Your task to perform on an android device: open app "Pluto TV - Live TV and Movies" (install if not already installed) and go to login screen Image 0: 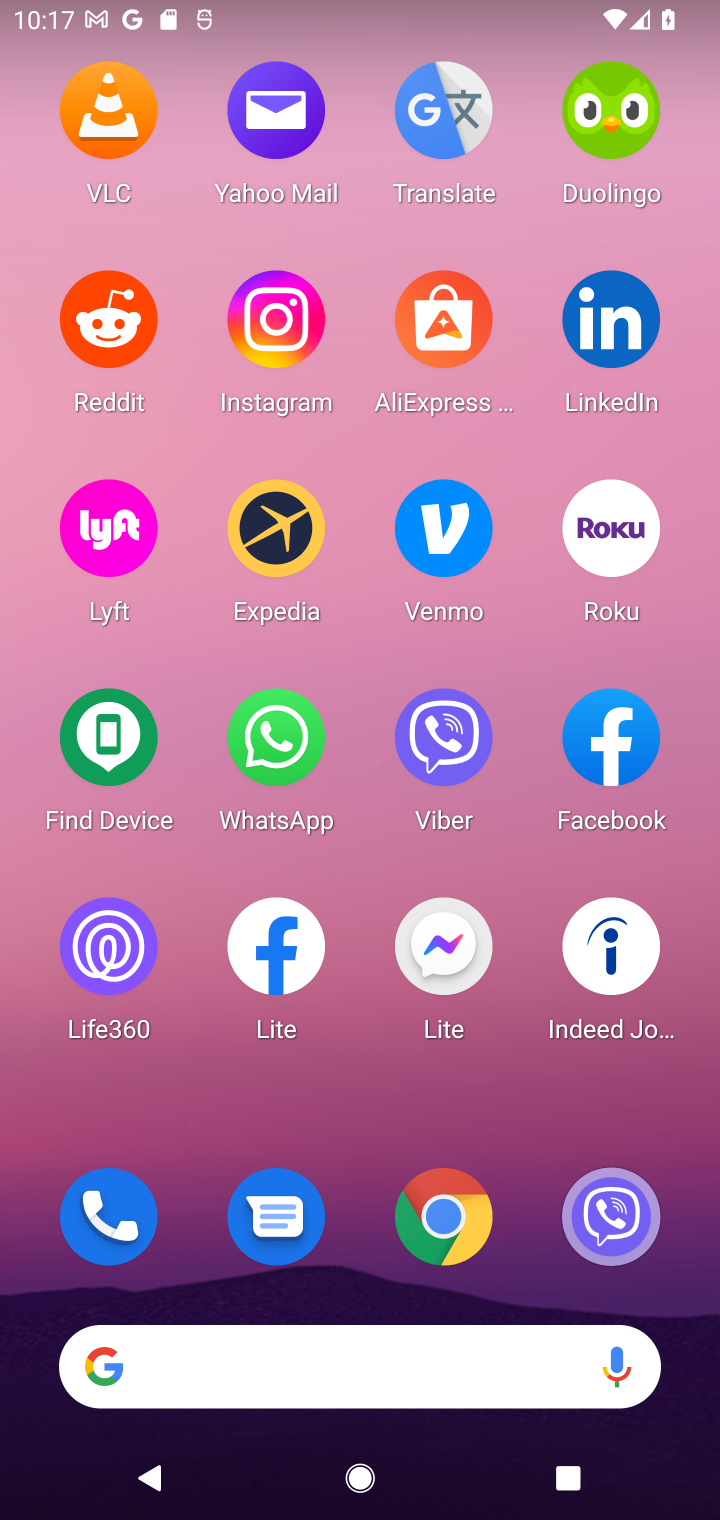
Step 0: press home button
Your task to perform on an android device: open app "Pluto TV - Live TV and Movies" (install if not already installed) and go to login screen Image 1: 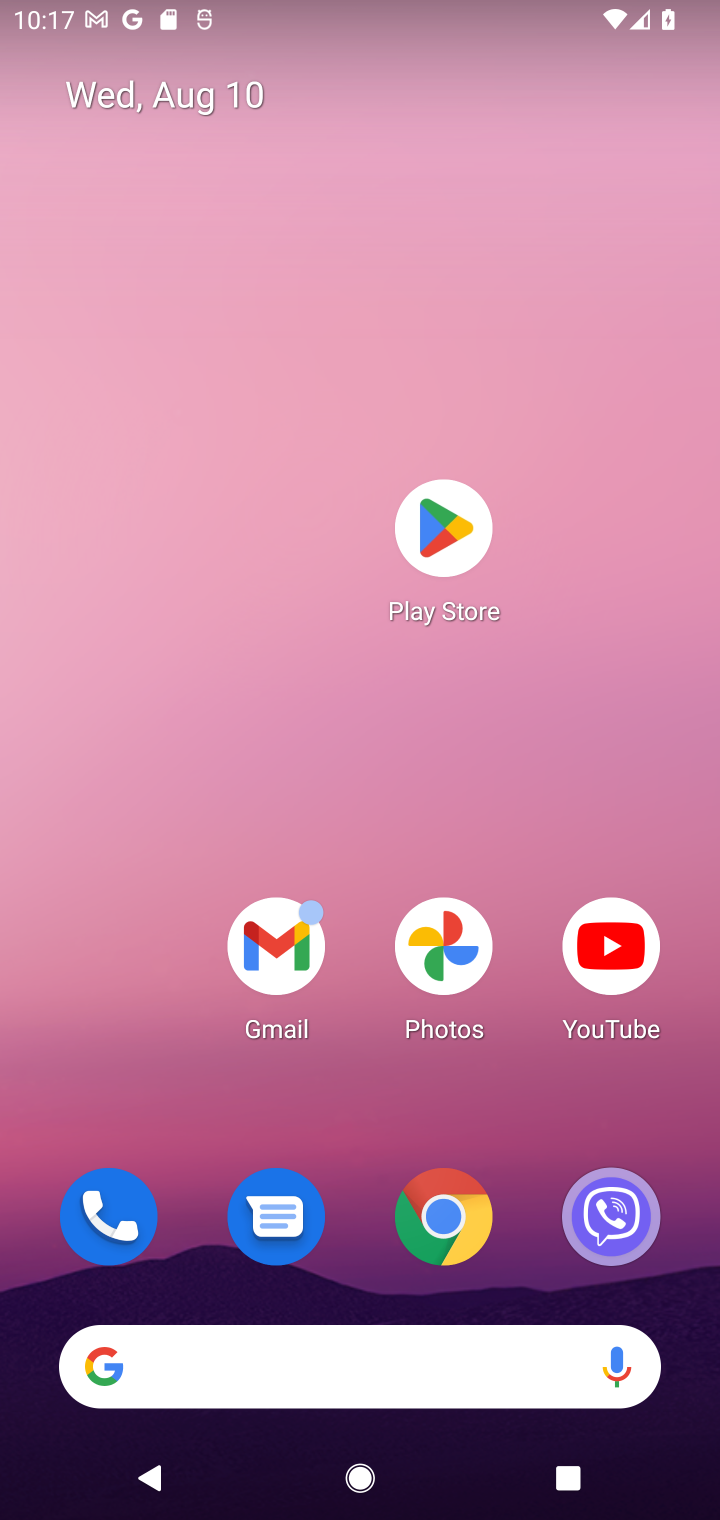
Step 1: click (446, 524)
Your task to perform on an android device: open app "Pluto TV - Live TV and Movies" (install if not already installed) and go to login screen Image 2: 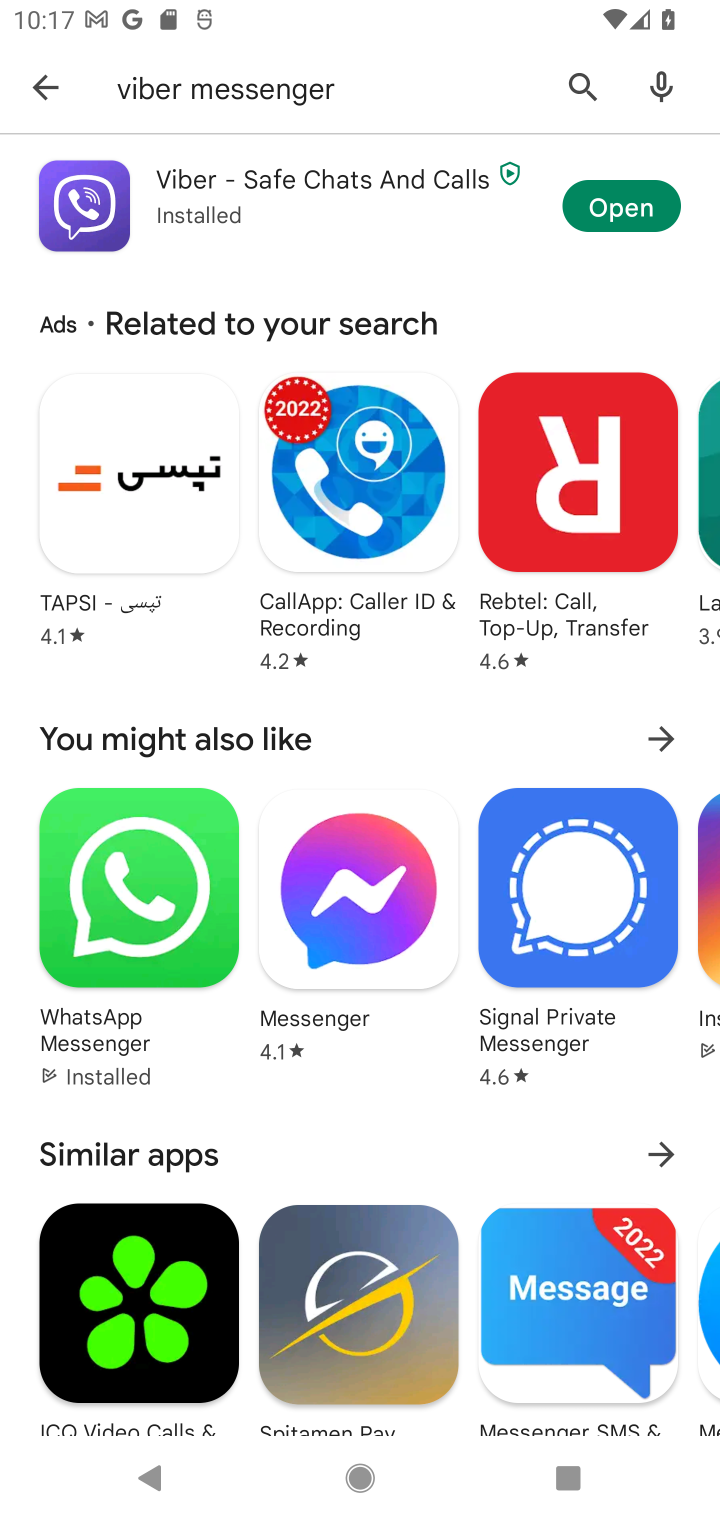
Step 2: click (565, 77)
Your task to perform on an android device: open app "Pluto TV - Live TV and Movies" (install if not already installed) and go to login screen Image 3: 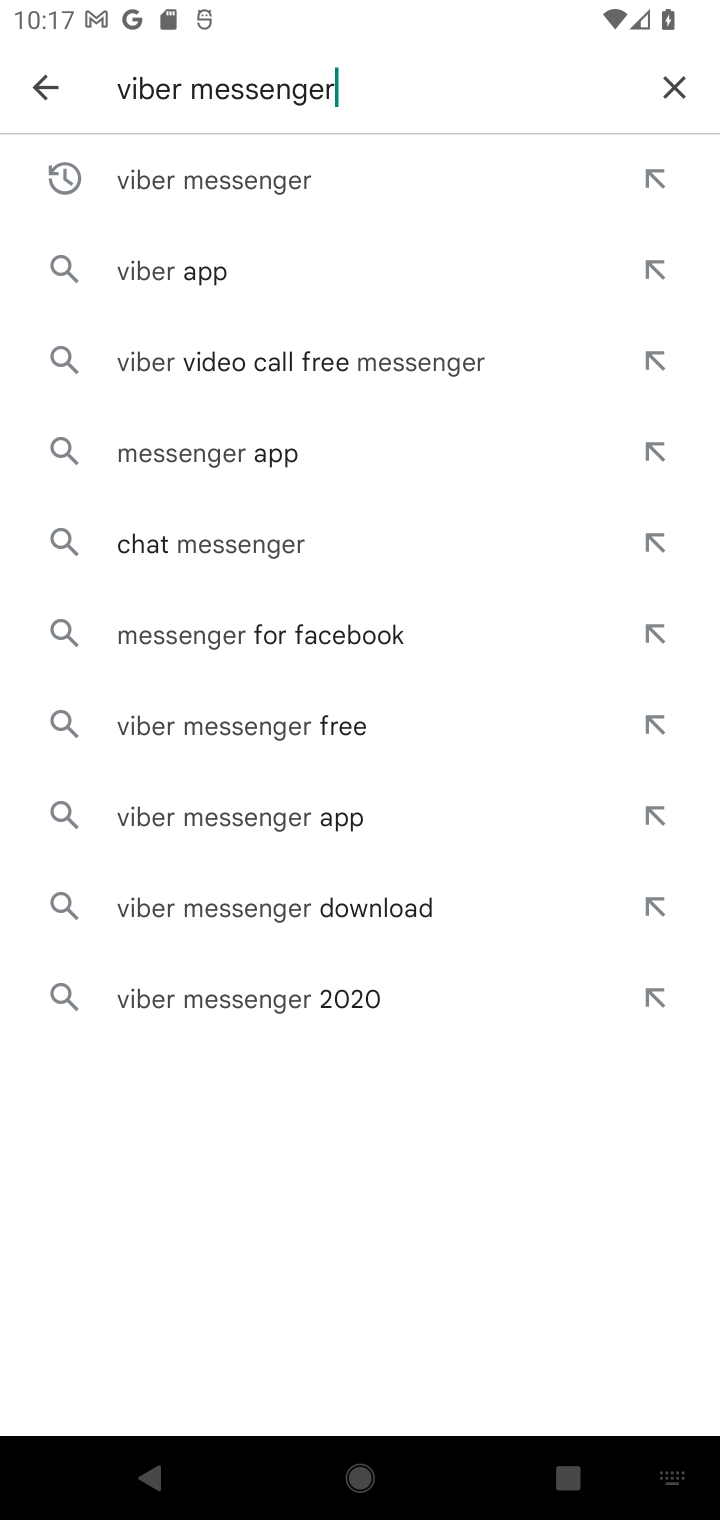
Step 3: click (682, 72)
Your task to perform on an android device: open app "Pluto TV - Live TV and Movies" (install if not already installed) and go to login screen Image 4: 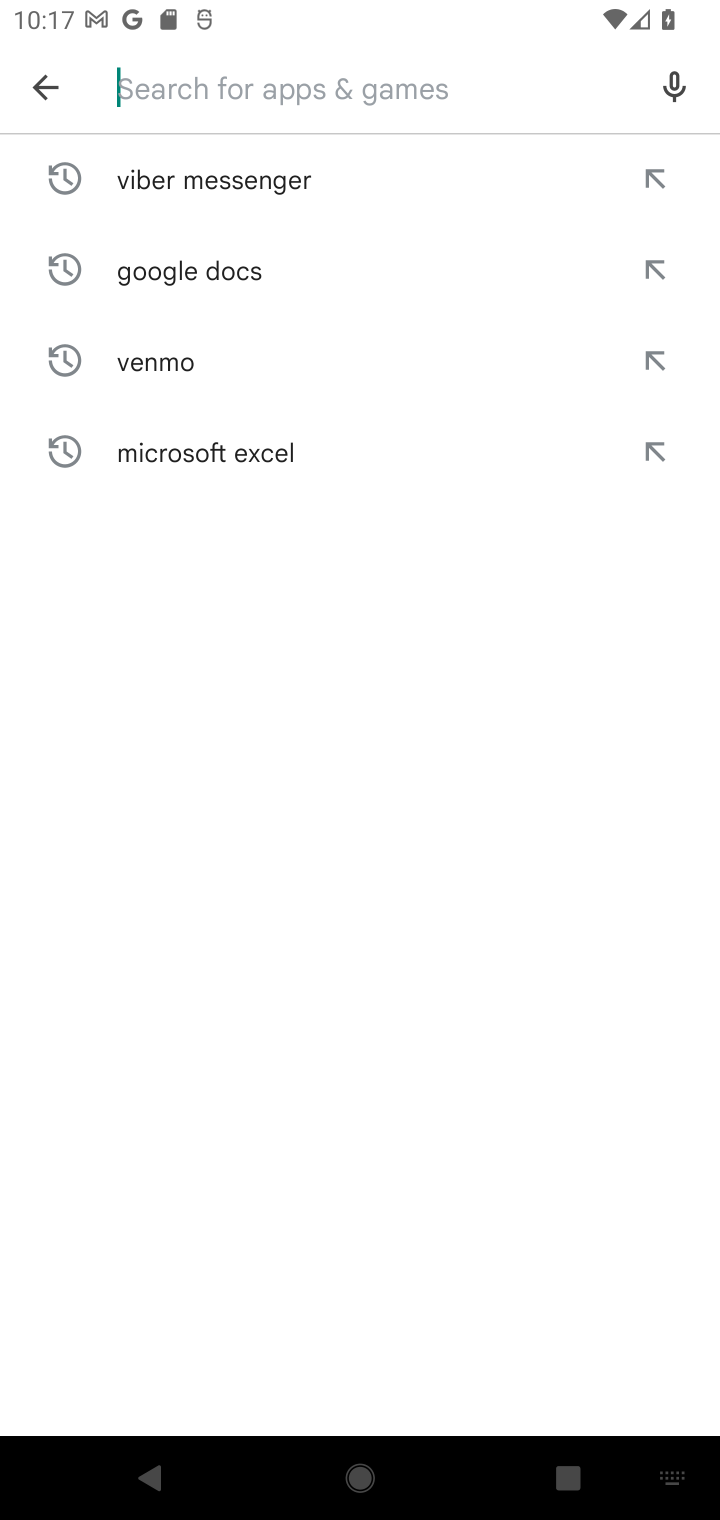
Step 4: type "Pluto TV - Live TV and Movies"
Your task to perform on an android device: open app "Pluto TV - Live TV and Movies" (install if not already installed) and go to login screen Image 5: 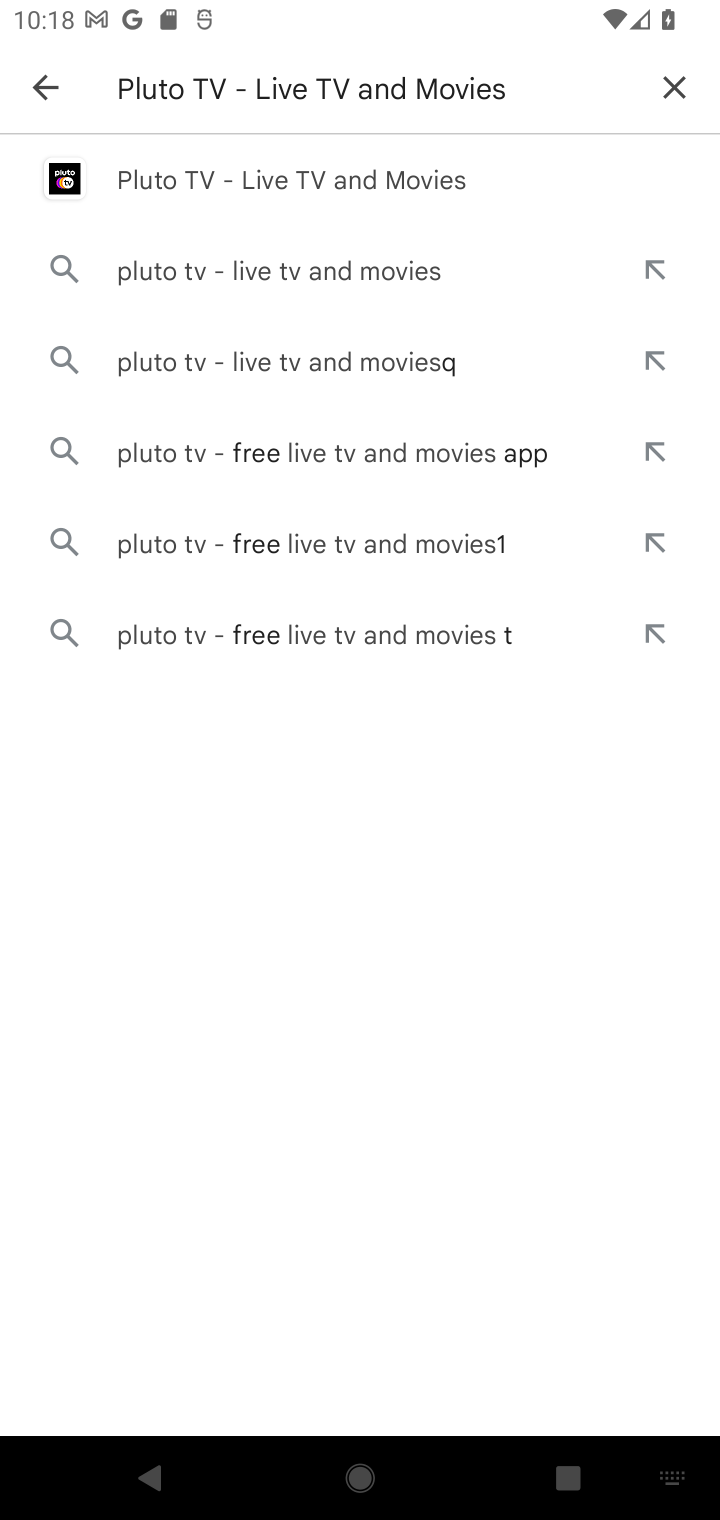
Step 5: click (296, 170)
Your task to perform on an android device: open app "Pluto TV - Live TV and Movies" (install if not already installed) and go to login screen Image 6: 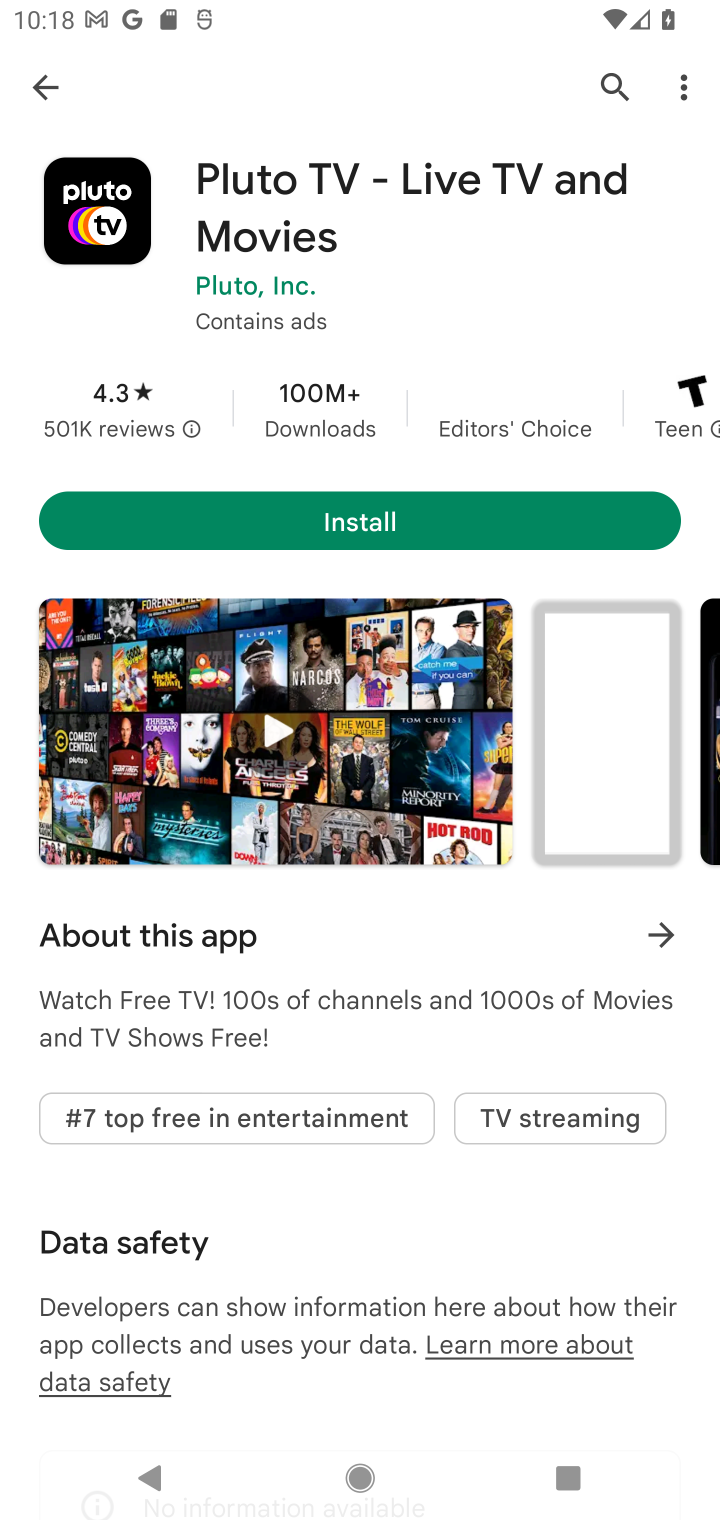
Step 6: click (332, 516)
Your task to perform on an android device: open app "Pluto TV - Live TV and Movies" (install if not already installed) and go to login screen Image 7: 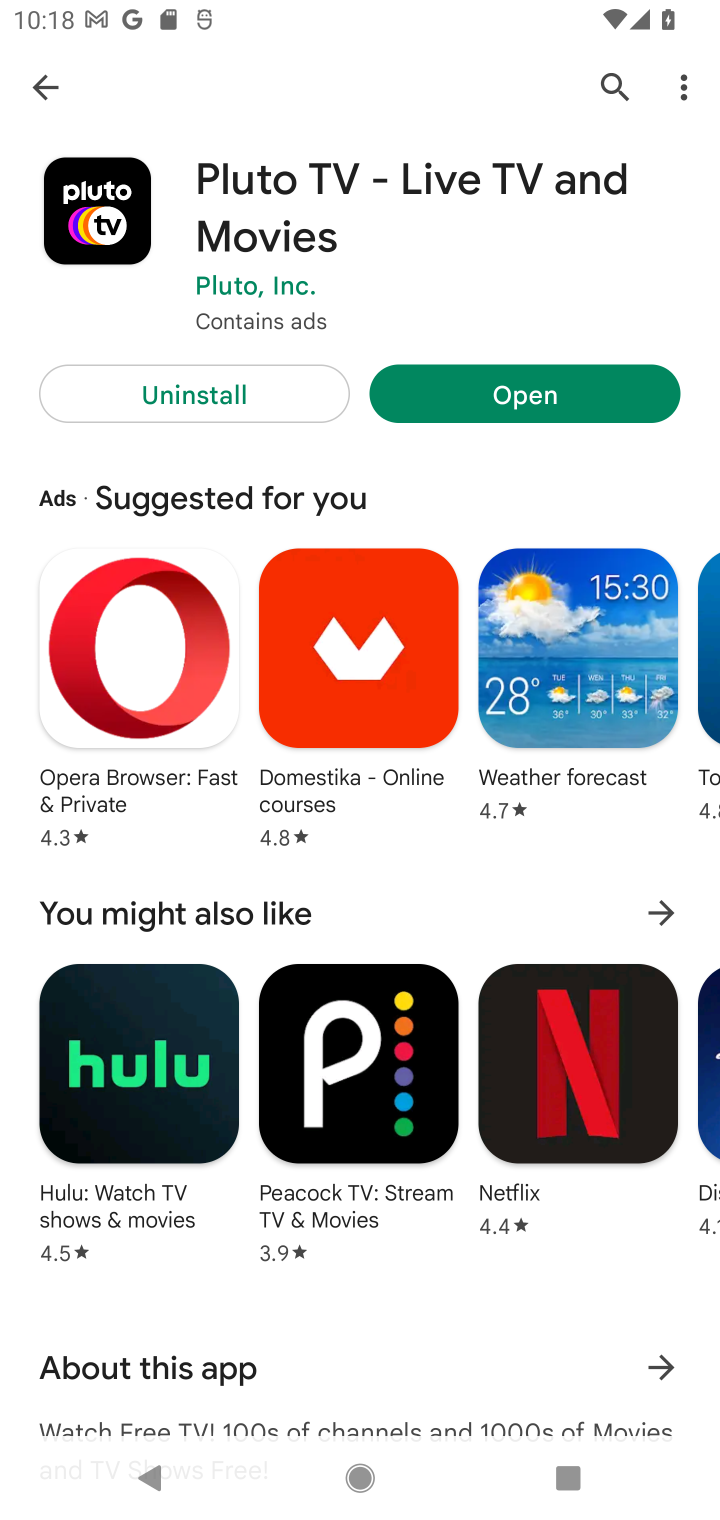
Step 7: click (611, 387)
Your task to perform on an android device: open app "Pluto TV - Live TV and Movies" (install if not already installed) and go to login screen Image 8: 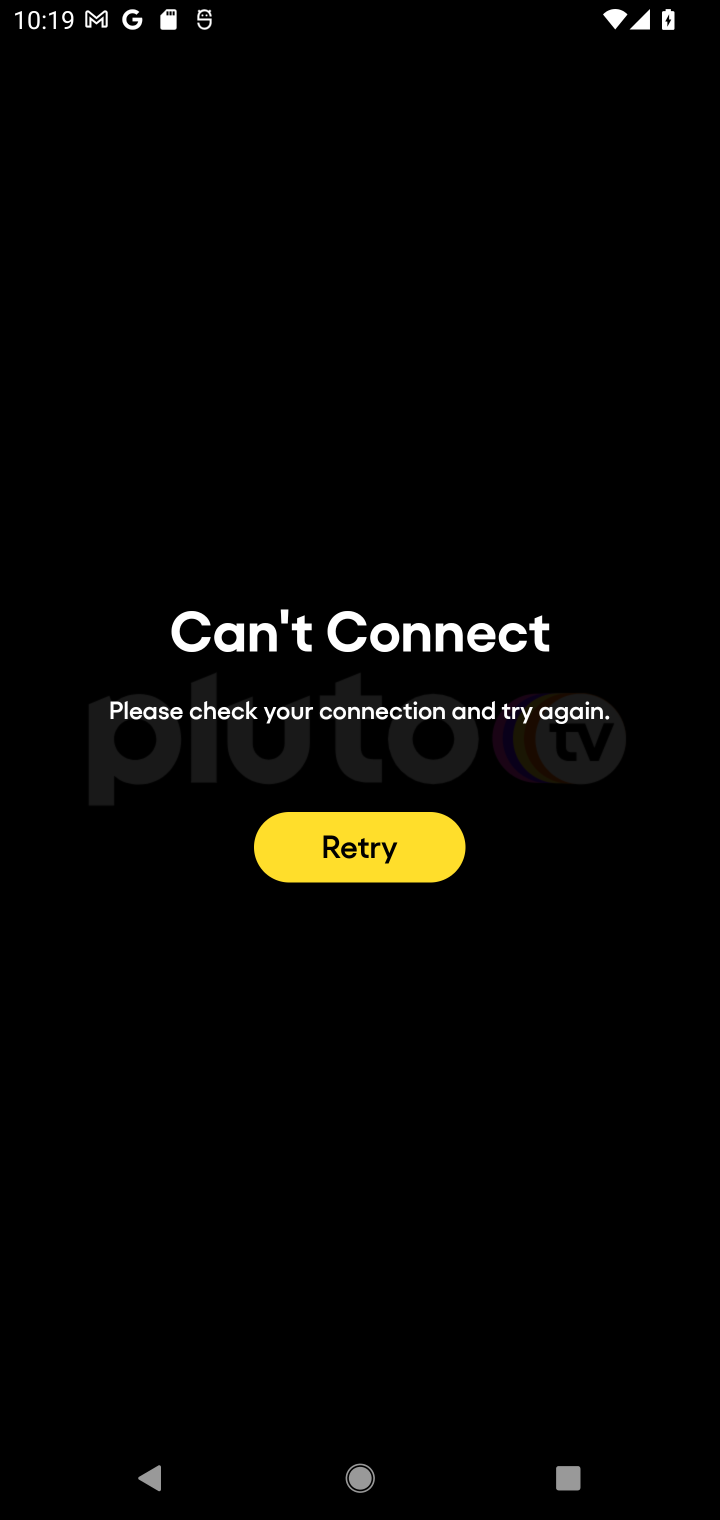
Step 8: task complete